Your task to perform on an android device: Go to Maps Image 0: 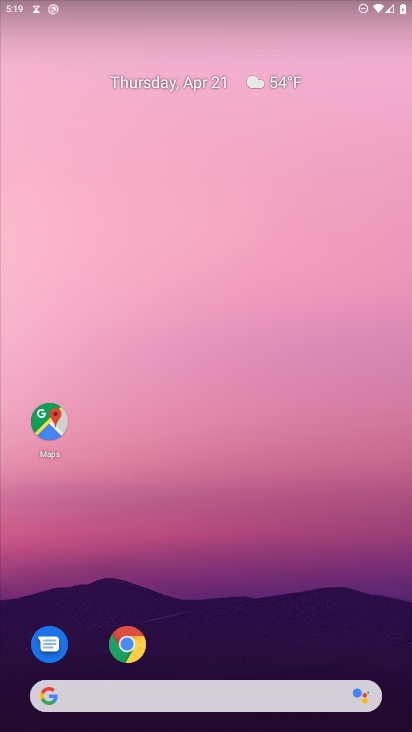
Step 0: click (121, 638)
Your task to perform on an android device: Go to Maps Image 1: 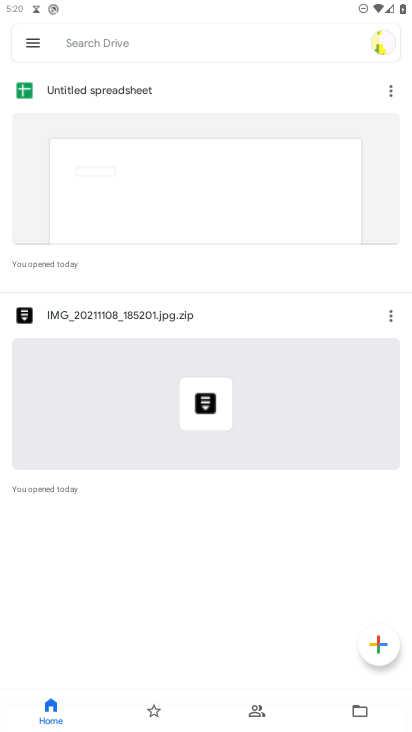
Step 1: press home button
Your task to perform on an android device: Go to Maps Image 2: 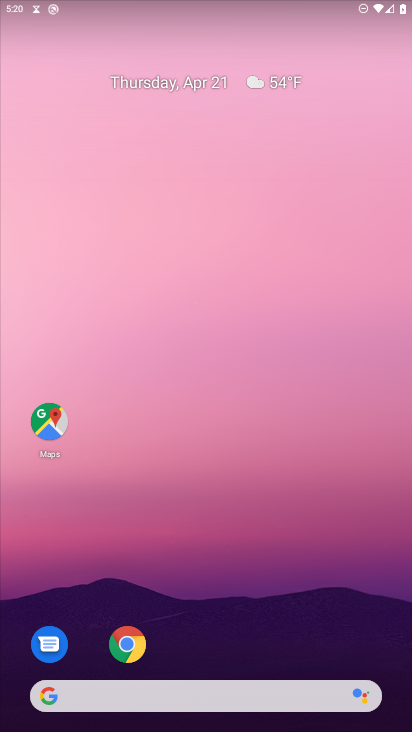
Step 2: click (52, 425)
Your task to perform on an android device: Go to Maps Image 3: 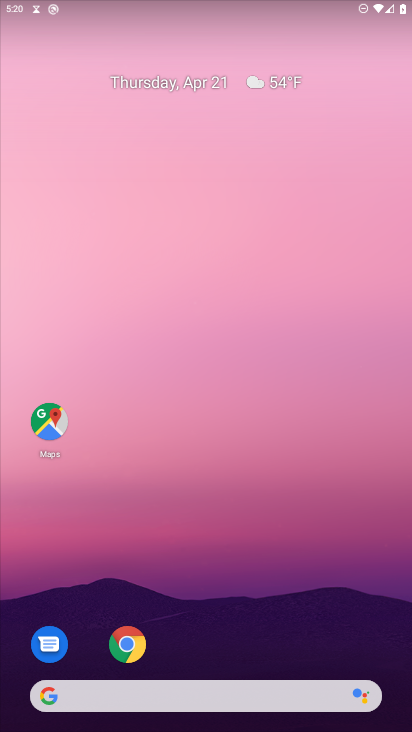
Step 3: click (52, 425)
Your task to perform on an android device: Go to Maps Image 4: 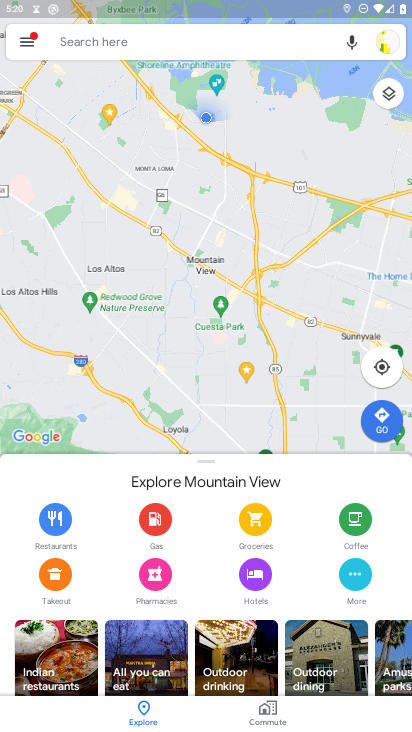
Step 4: task complete